Your task to perform on an android device: Go to network settings Image 0: 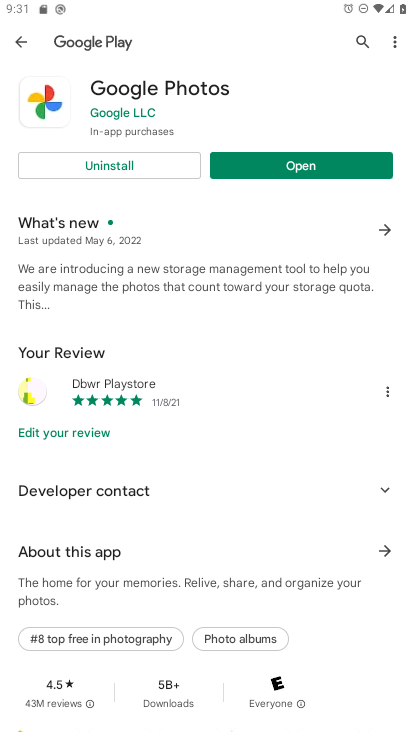
Step 0: press home button
Your task to perform on an android device: Go to network settings Image 1: 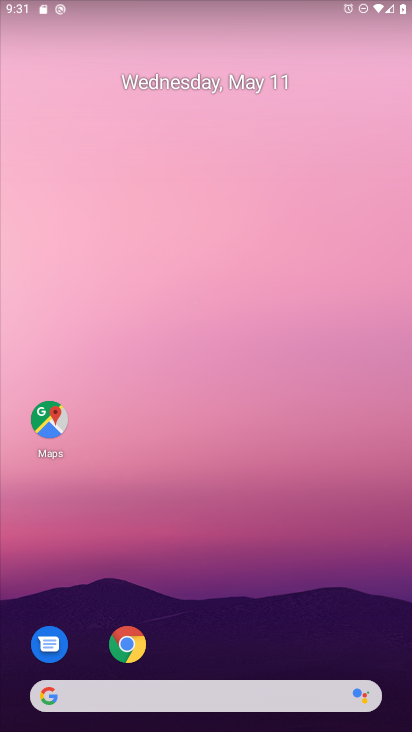
Step 1: drag from (219, 576) to (93, 85)
Your task to perform on an android device: Go to network settings Image 2: 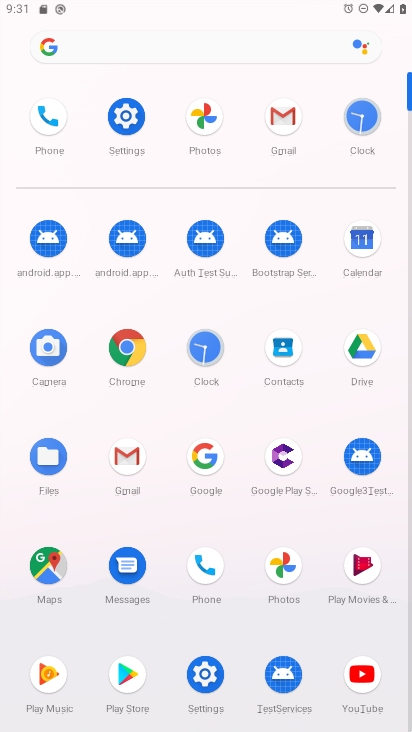
Step 2: click (129, 113)
Your task to perform on an android device: Go to network settings Image 3: 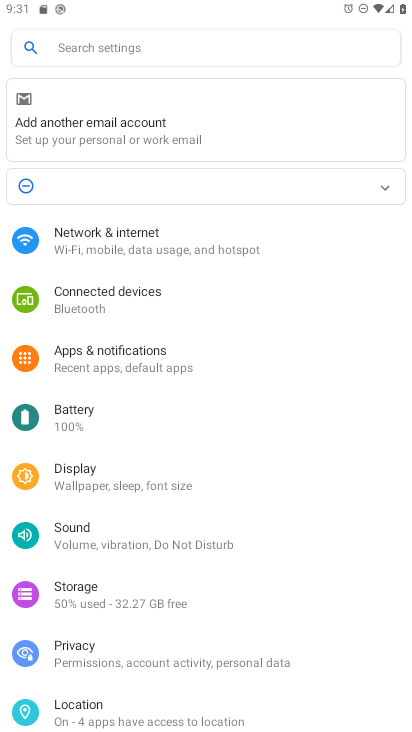
Step 3: click (100, 237)
Your task to perform on an android device: Go to network settings Image 4: 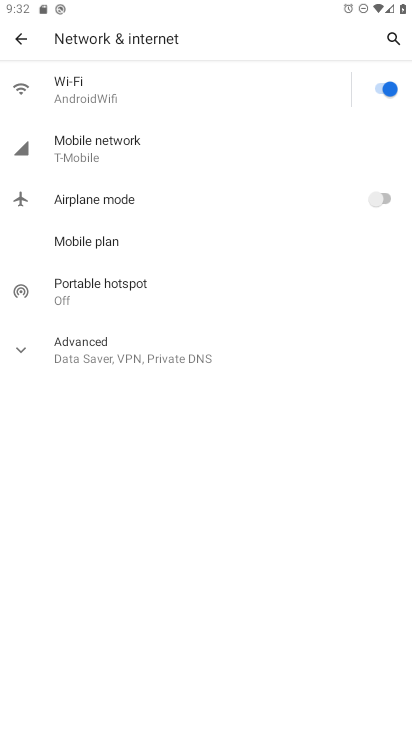
Step 4: click (109, 145)
Your task to perform on an android device: Go to network settings Image 5: 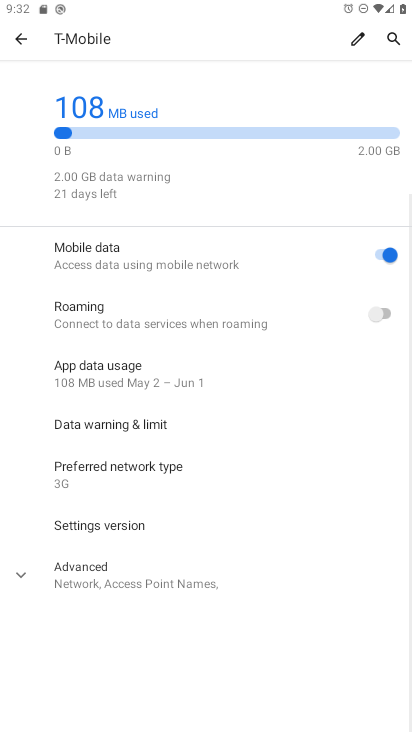
Step 5: task complete